Your task to perform on an android device: Is it going to rain tomorrow? Image 0: 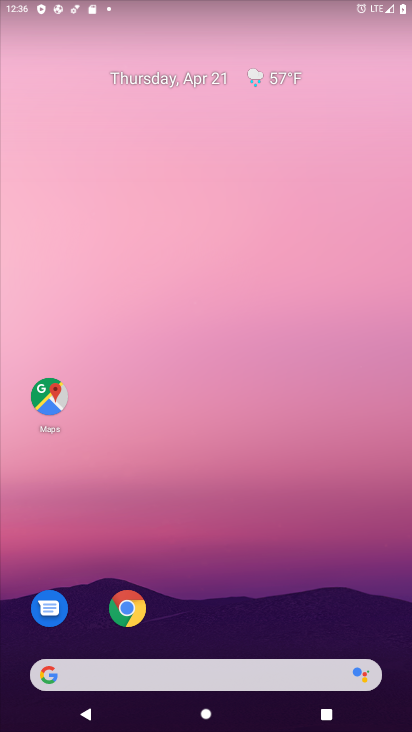
Step 0: drag from (240, 514) to (288, 106)
Your task to perform on an android device: Is it going to rain tomorrow? Image 1: 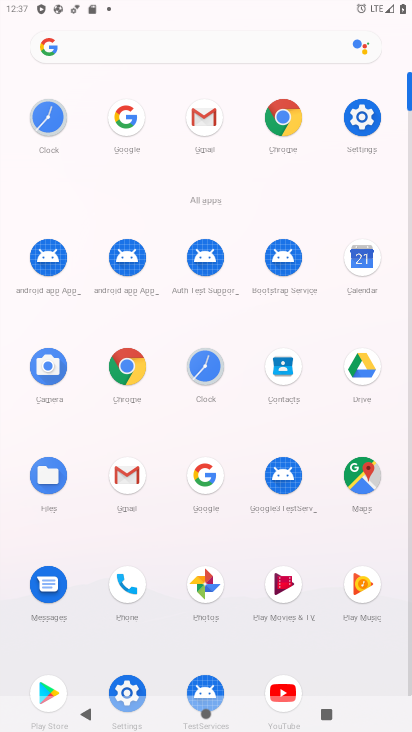
Step 1: click (198, 478)
Your task to perform on an android device: Is it going to rain tomorrow? Image 2: 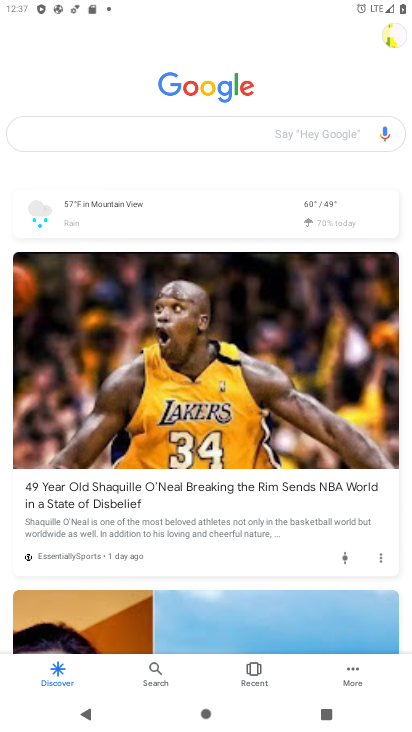
Step 2: click (133, 206)
Your task to perform on an android device: Is it going to rain tomorrow? Image 3: 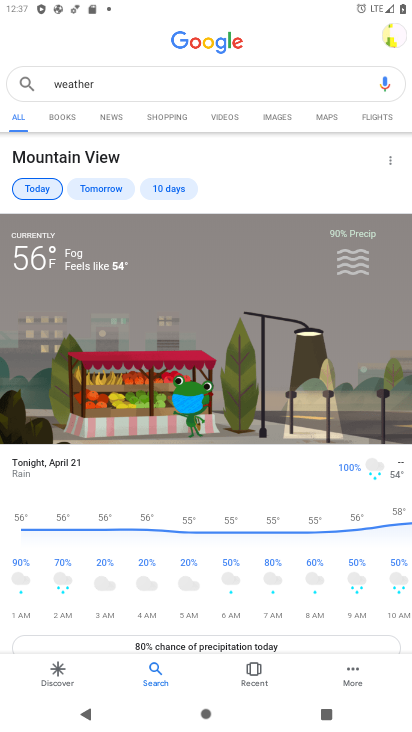
Step 3: click (104, 185)
Your task to perform on an android device: Is it going to rain tomorrow? Image 4: 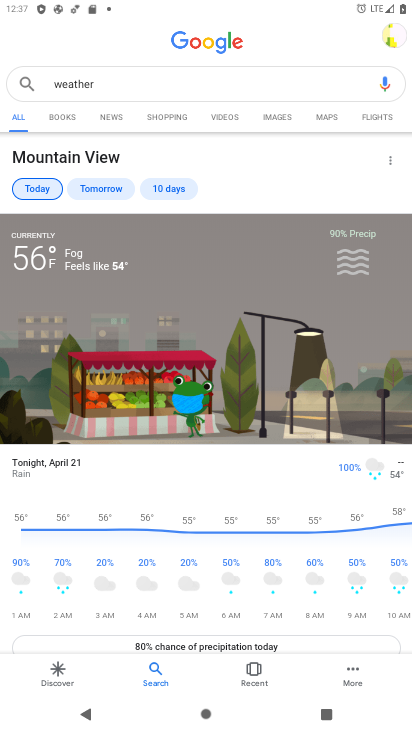
Step 4: click (104, 185)
Your task to perform on an android device: Is it going to rain tomorrow? Image 5: 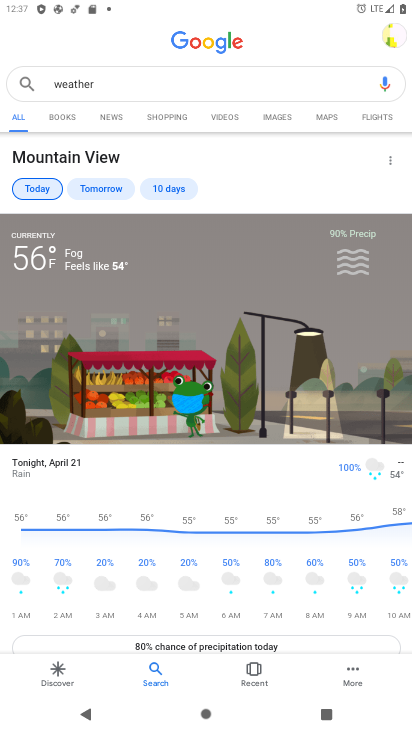
Step 5: click (104, 185)
Your task to perform on an android device: Is it going to rain tomorrow? Image 6: 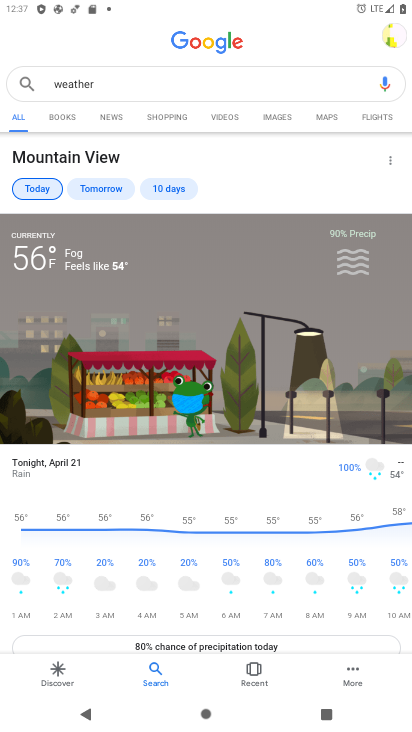
Step 6: click (109, 180)
Your task to perform on an android device: Is it going to rain tomorrow? Image 7: 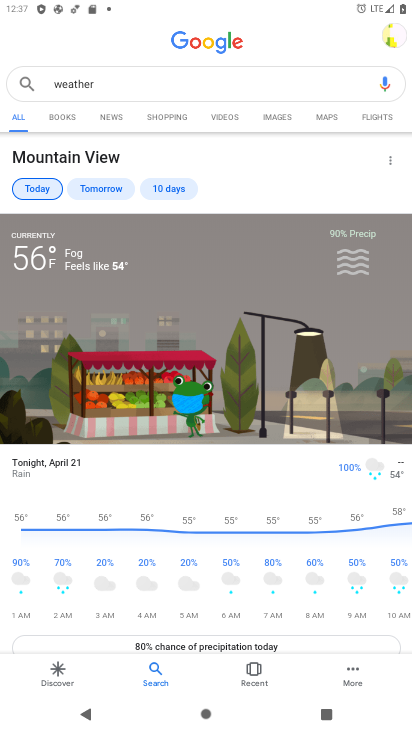
Step 7: task complete